Your task to perform on an android device: Open the calendar app, open the side menu, and click the "Day" option Image 0: 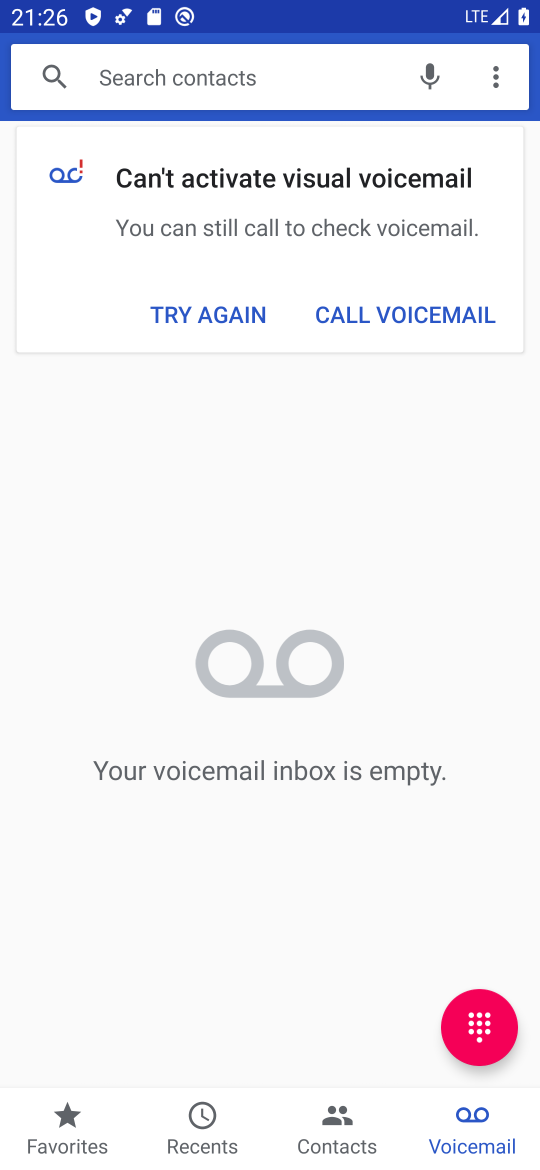
Step 0: press home button
Your task to perform on an android device: Open the calendar app, open the side menu, and click the "Day" option Image 1: 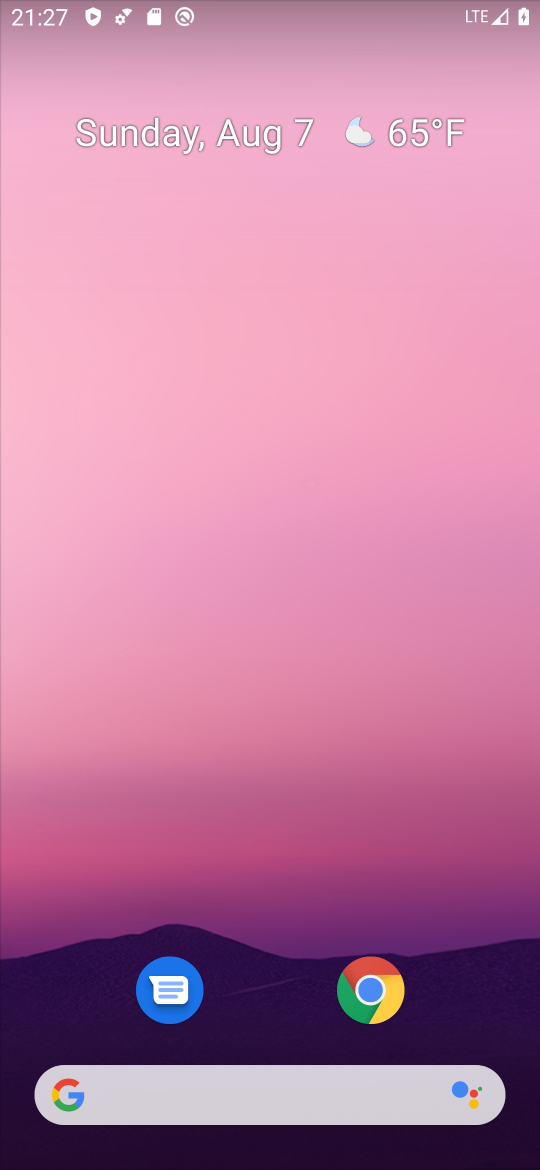
Step 1: drag from (278, 1014) to (213, 1)
Your task to perform on an android device: Open the calendar app, open the side menu, and click the "Day" option Image 2: 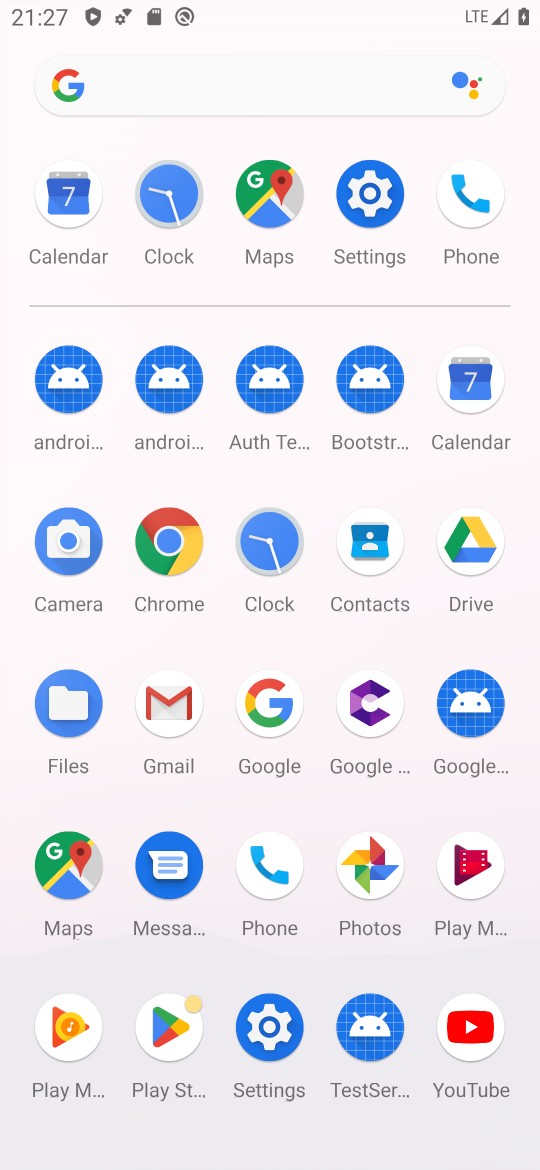
Step 2: click (70, 194)
Your task to perform on an android device: Open the calendar app, open the side menu, and click the "Day" option Image 3: 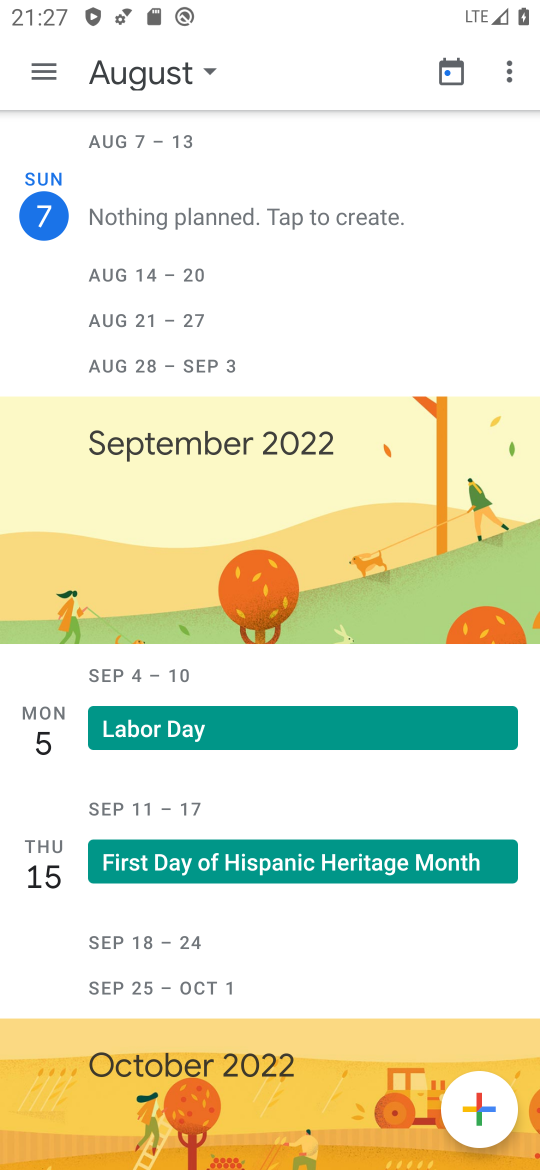
Step 3: click (37, 65)
Your task to perform on an android device: Open the calendar app, open the side menu, and click the "Day" option Image 4: 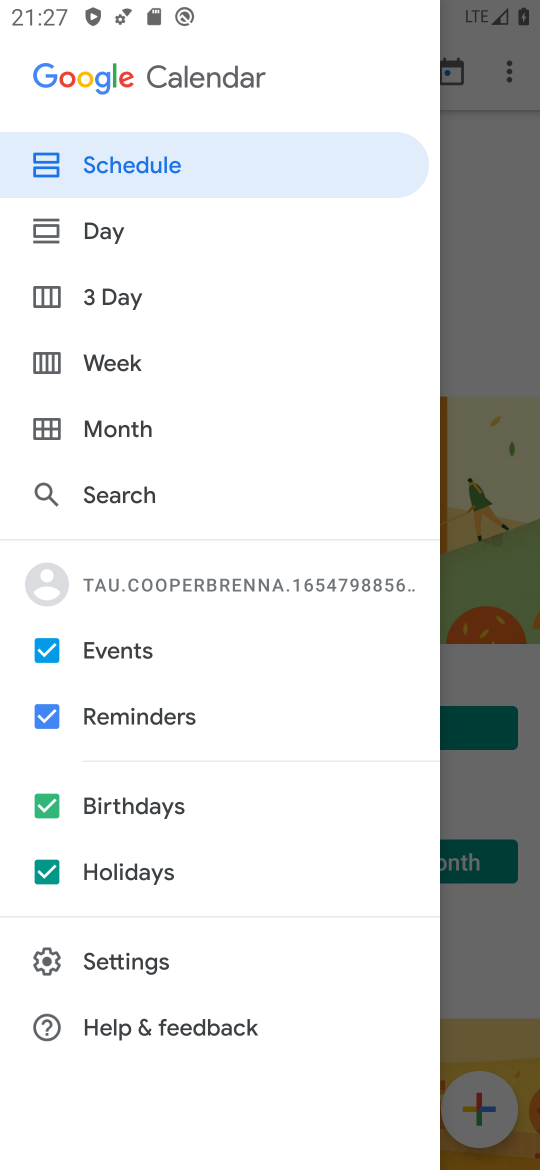
Step 4: click (38, 229)
Your task to perform on an android device: Open the calendar app, open the side menu, and click the "Day" option Image 5: 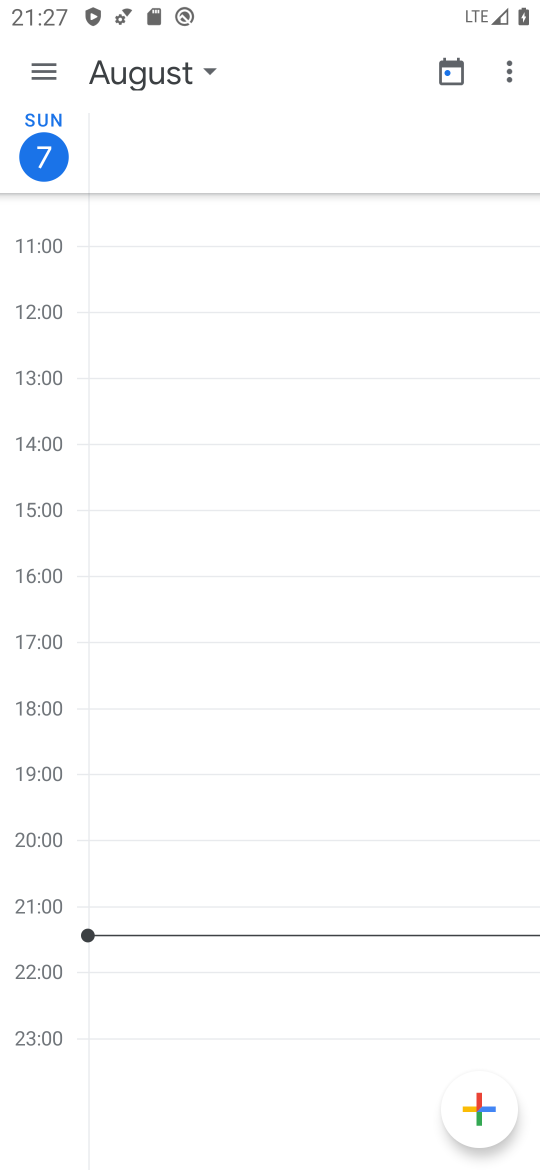
Step 5: task complete